Your task to perform on an android device: Open calendar and show me the second week of next month Image 0: 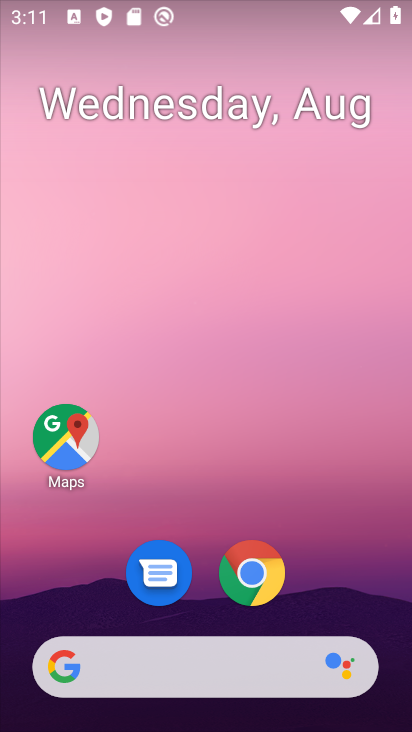
Step 0: drag from (228, 508) to (236, 1)
Your task to perform on an android device: Open calendar and show me the second week of next month Image 1: 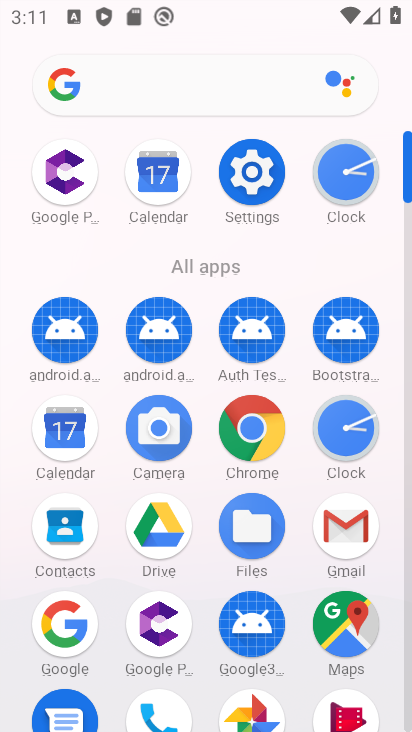
Step 1: click (173, 192)
Your task to perform on an android device: Open calendar and show me the second week of next month Image 2: 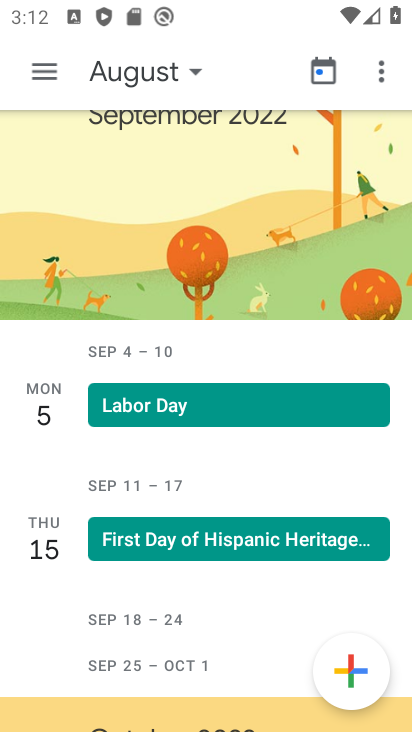
Step 2: click (48, 76)
Your task to perform on an android device: Open calendar and show me the second week of next month Image 3: 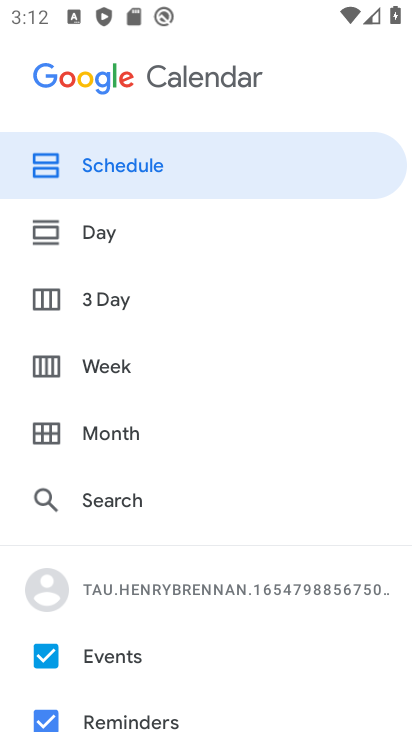
Step 3: click (54, 435)
Your task to perform on an android device: Open calendar and show me the second week of next month Image 4: 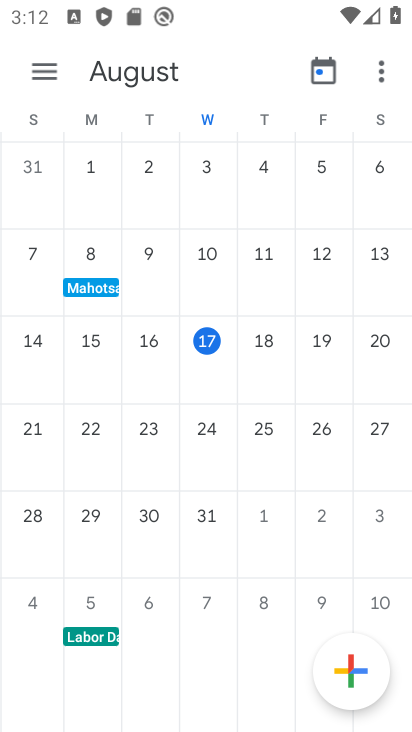
Step 4: drag from (352, 439) to (0, 437)
Your task to perform on an android device: Open calendar and show me the second week of next month Image 5: 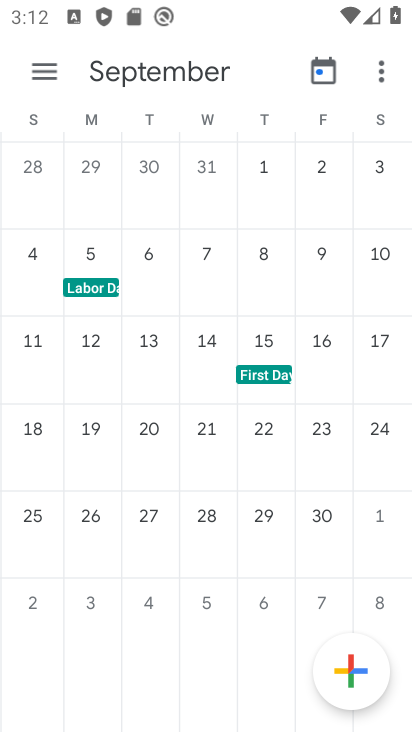
Step 5: click (33, 335)
Your task to perform on an android device: Open calendar and show me the second week of next month Image 6: 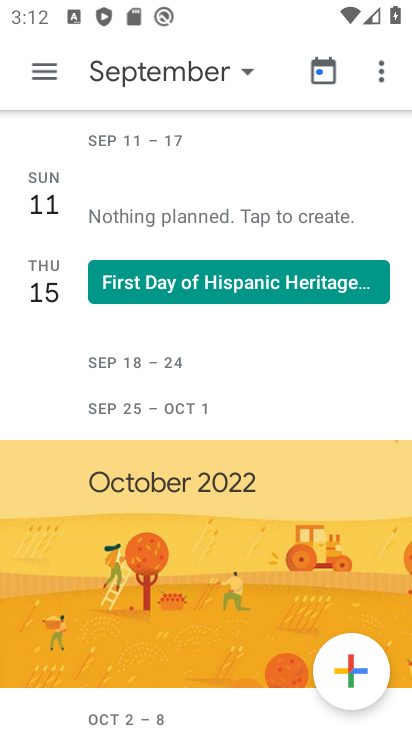
Step 6: click (35, 70)
Your task to perform on an android device: Open calendar and show me the second week of next month Image 7: 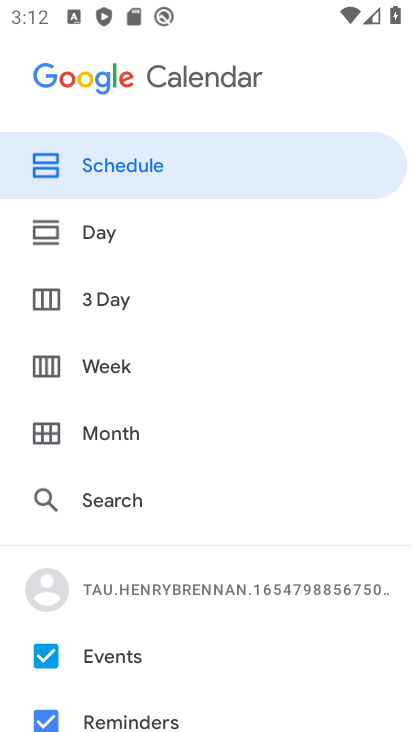
Step 7: click (91, 361)
Your task to perform on an android device: Open calendar and show me the second week of next month Image 8: 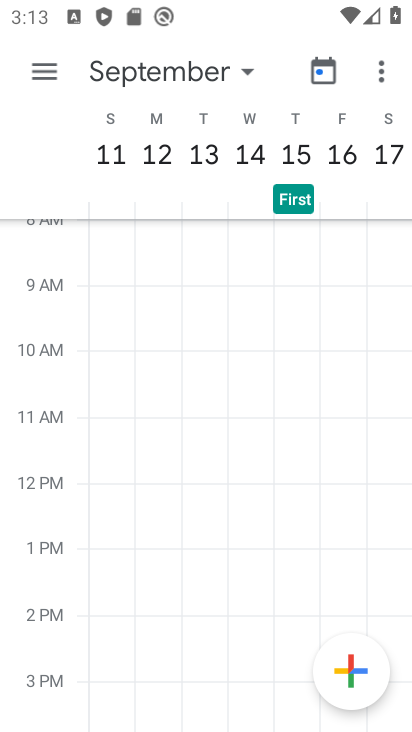
Step 8: task complete